Your task to perform on an android device: open device folders in google photos Image 0: 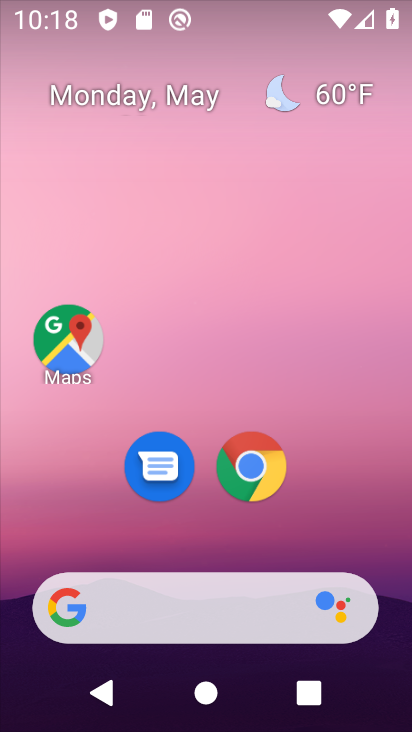
Step 0: drag from (269, 691) to (212, 243)
Your task to perform on an android device: open device folders in google photos Image 1: 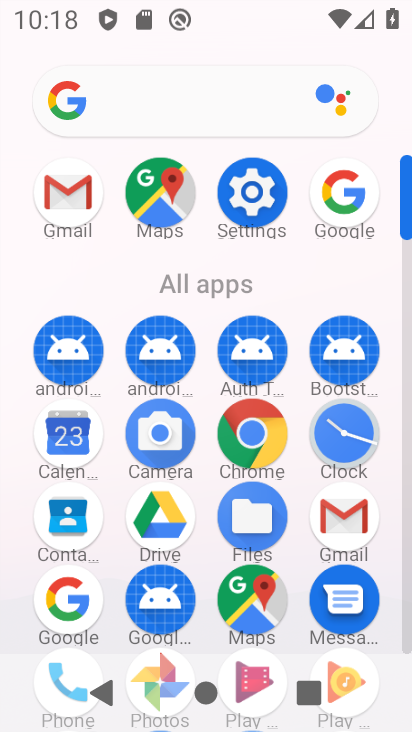
Step 1: drag from (228, 574) to (159, 199)
Your task to perform on an android device: open device folders in google photos Image 2: 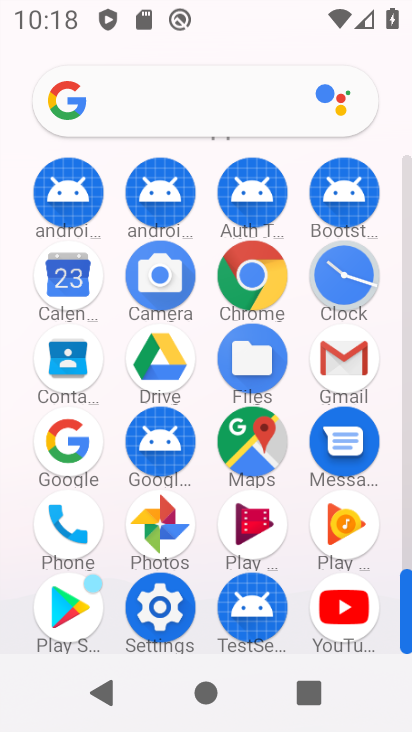
Step 2: drag from (197, 475) to (197, 174)
Your task to perform on an android device: open device folders in google photos Image 3: 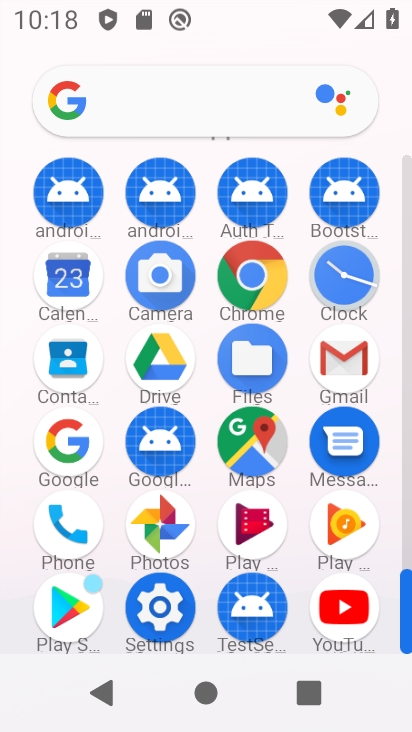
Step 3: click (167, 523)
Your task to perform on an android device: open device folders in google photos Image 4: 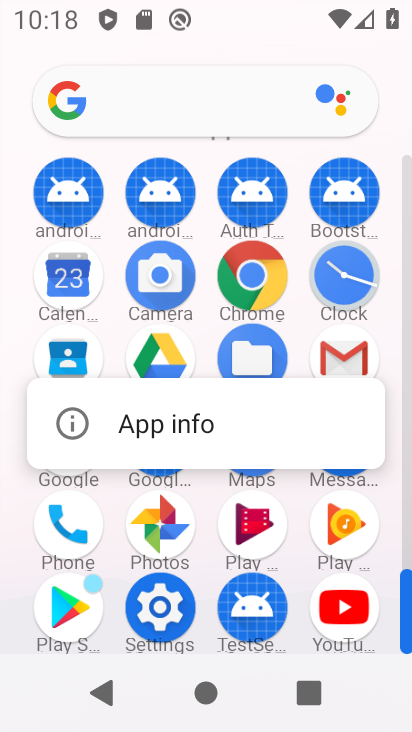
Step 4: click (182, 521)
Your task to perform on an android device: open device folders in google photos Image 5: 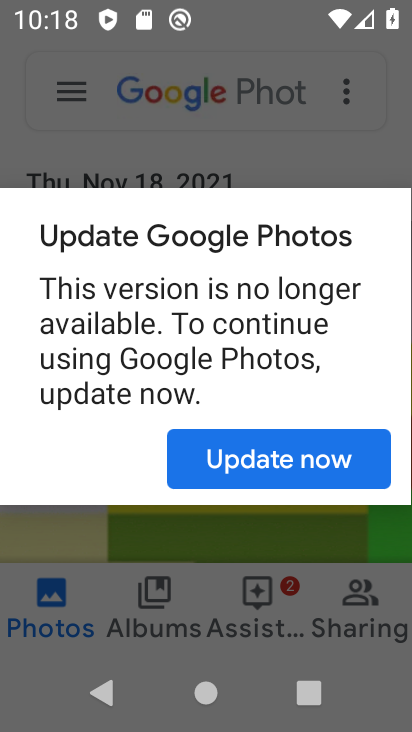
Step 5: click (227, 464)
Your task to perform on an android device: open device folders in google photos Image 6: 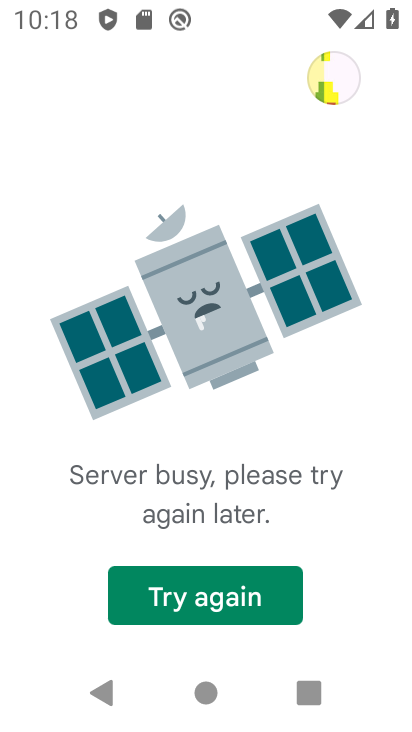
Step 6: task complete